Your task to perform on an android device: What's on my calendar today? Image 0: 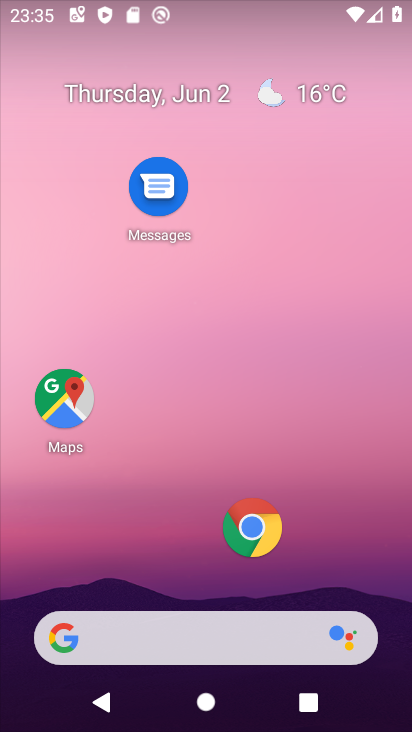
Step 0: press home button
Your task to perform on an android device: What's on my calendar today? Image 1: 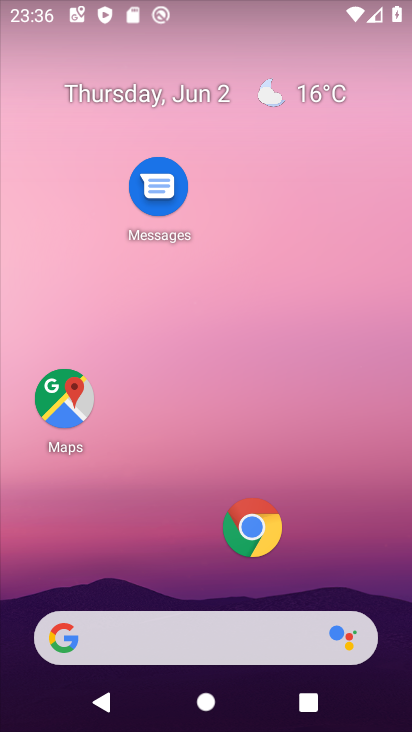
Step 1: drag from (207, 579) to (277, 48)
Your task to perform on an android device: What's on my calendar today? Image 2: 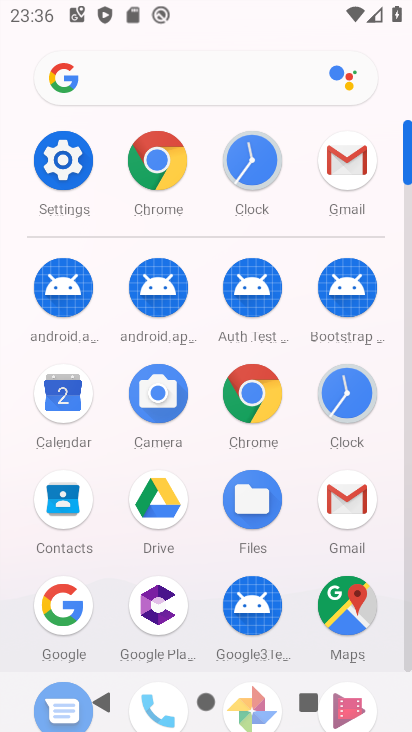
Step 2: click (64, 391)
Your task to perform on an android device: What's on my calendar today? Image 3: 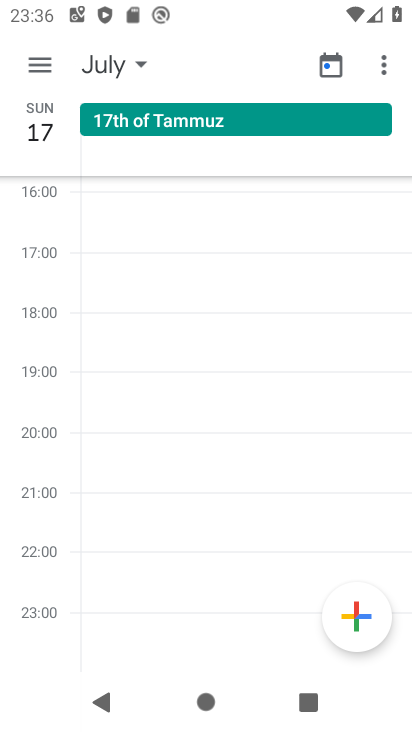
Step 3: click (136, 57)
Your task to perform on an android device: What's on my calendar today? Image 4: 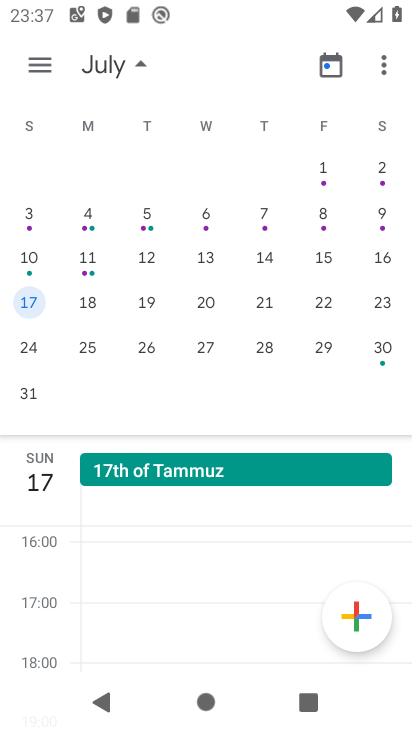
Step 4: drag from (48, 292) to (397, 267)
Your task to perform on an android device: What's on my calendar today? Image 5: 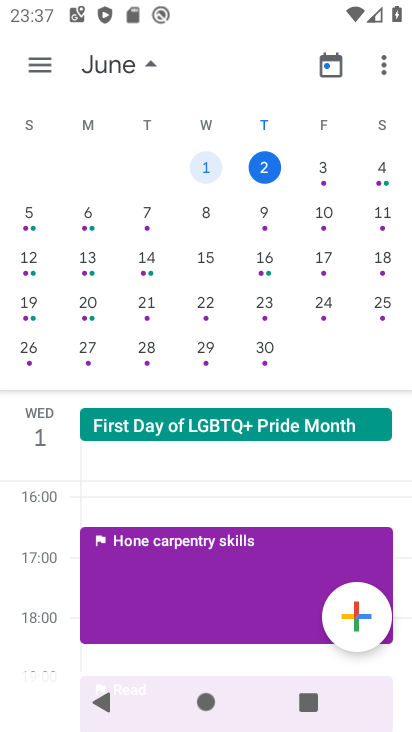
Step 5: click (265, 165)
Your task to perform on an android device: What's on my calendar today? Image 6: 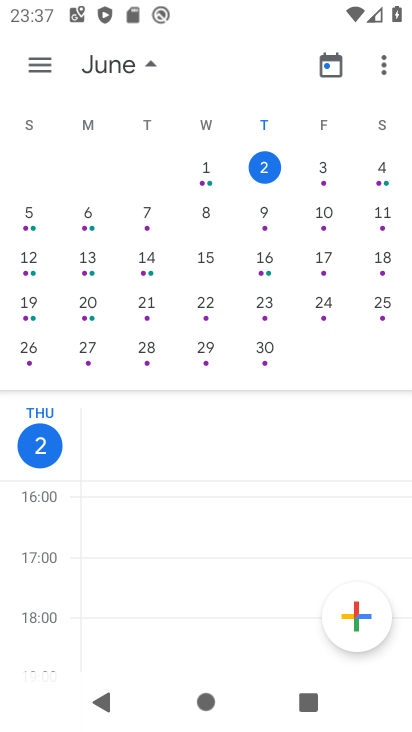
Step 6: click (157, 61)
Your task to perform on an android device: What's on my calendar today? Image 7: 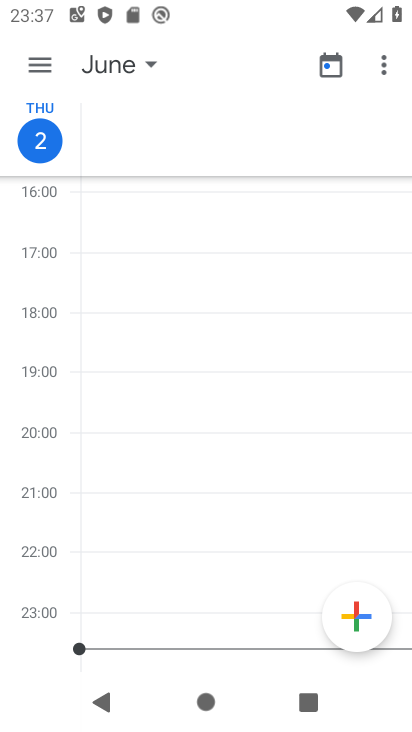
Step 7: task complete